Your task to perform on an android device: Open the calendar app, open the side menu, and click the "Day" option Image 0: 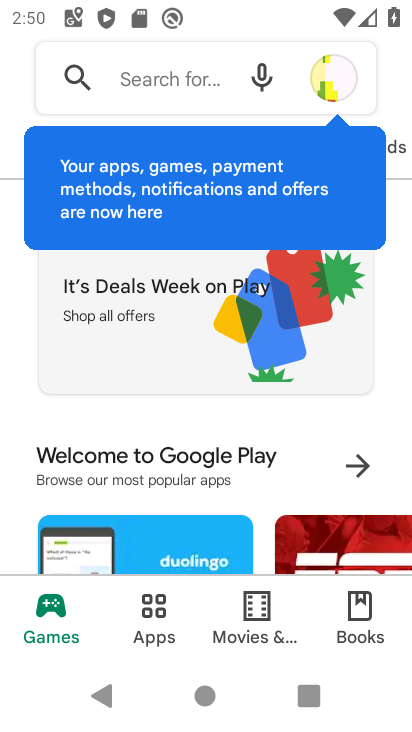
Step 0: press home button
Your task to perform on an android device: Open the calendar app, open the side menu, and click the "Day" option Image 1: 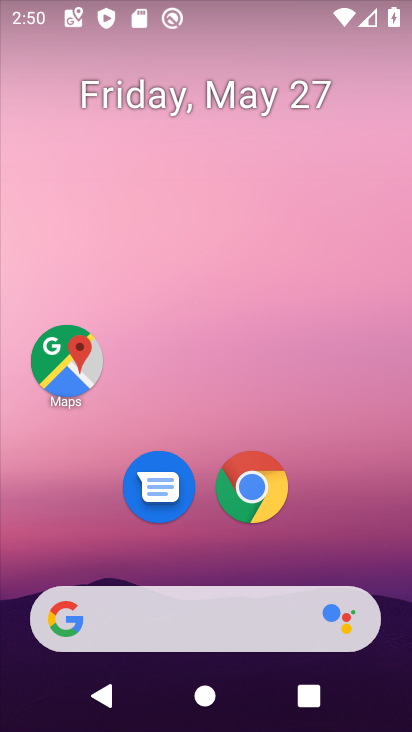
Step 1: drag from (141, 653) to (146, 141)
Your task to perform on an android device: Open the calendar app, open the side menu, and click the "Day" option Image 2: 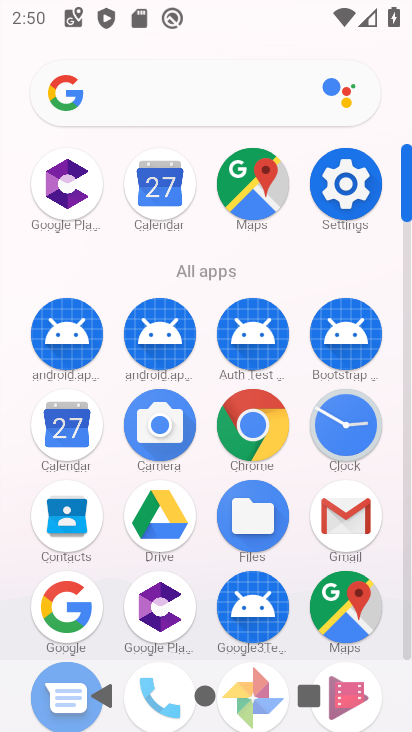
Step 2: click (67, 435)
Your task to perform on an android device: Open the calendar app, open the side menu, and click the "Day" option Image 3: 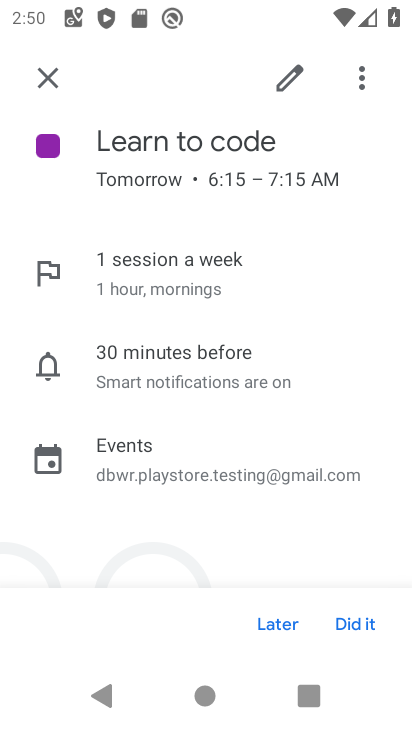
Step 3: click (46, 70)
Your task to perform on an android device: Open the calendar app, open the side menu, and click the "Day" option Image 4: 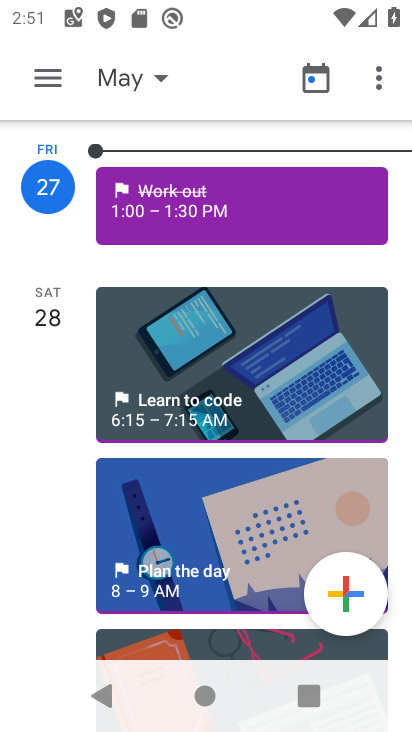
Step 4: click (40, 68)
Your task to perform on an android device: Open the calendar app, open the side menu, and click the "Day" option Image 5: 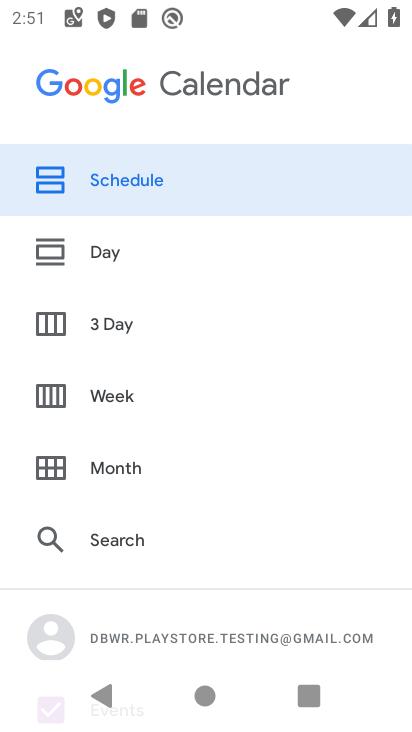
Step 5: click (102, 249)
Your task to perform on an android device: Open the calendar app, open the side menu, and click the "Day" option Image 6: 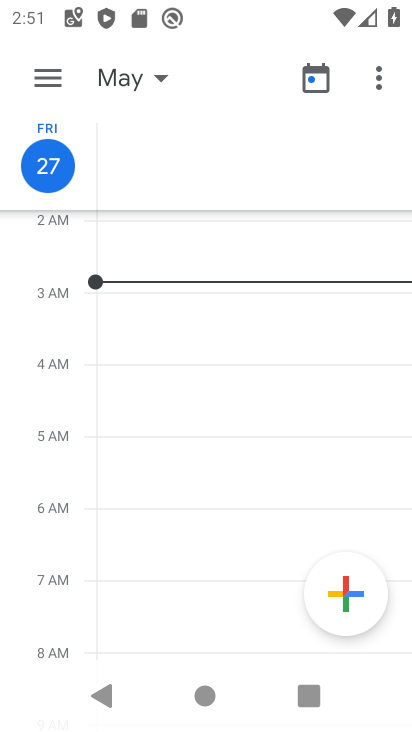
Step 6: task complete